Your task to perform on an android device: check battery use Image 0: 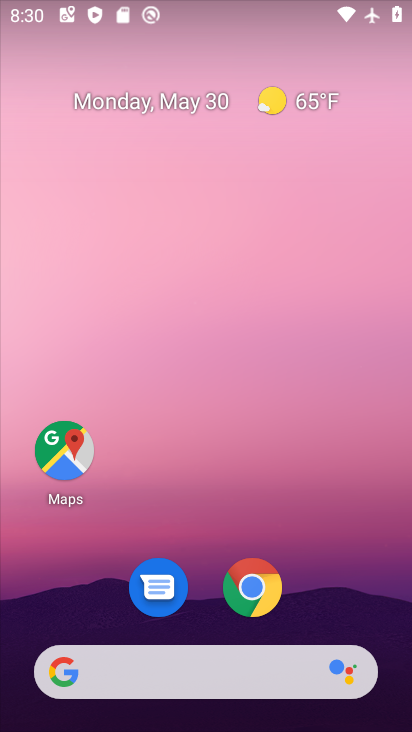
Step 0: press home button
Your task to perform on an android device: check battery use Image 1: 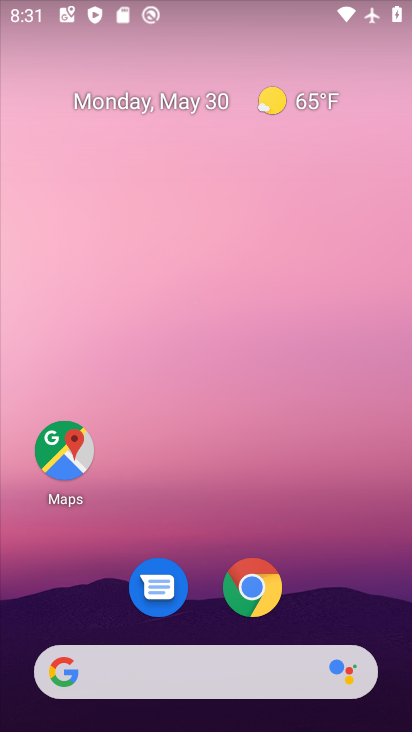
Step 1: drag from (163, 675) to (321, 146)
Your task to perform on an android device: check battery use Image 2: 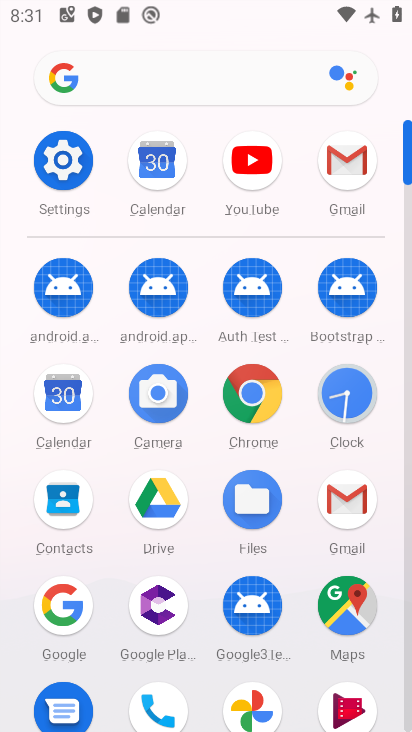
Step 2: click (73, 164)
Your task to perform on an android device: check battery use Image 3: 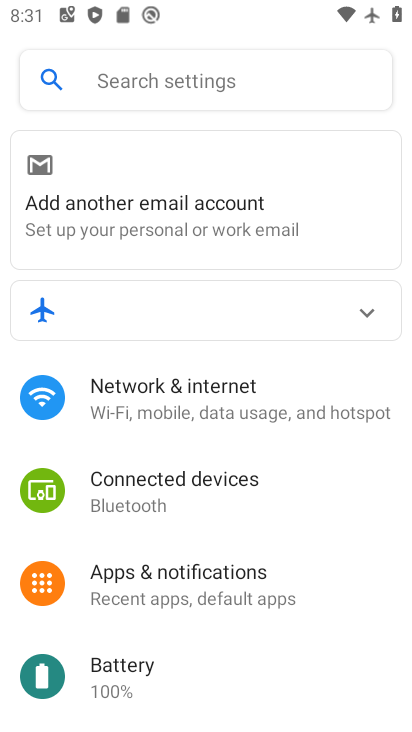
Step 3: click (135, 664)
Your task to perform on an android device: check battery use Image 4: 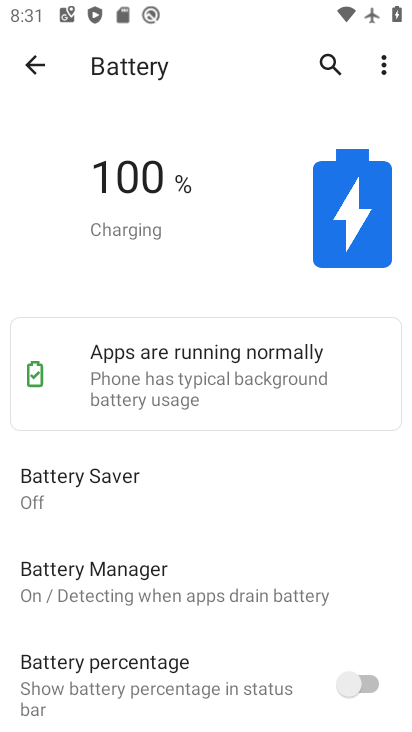
Step 4: click (383, 62)
Your task to perform on an android device: check battery use Image 5: 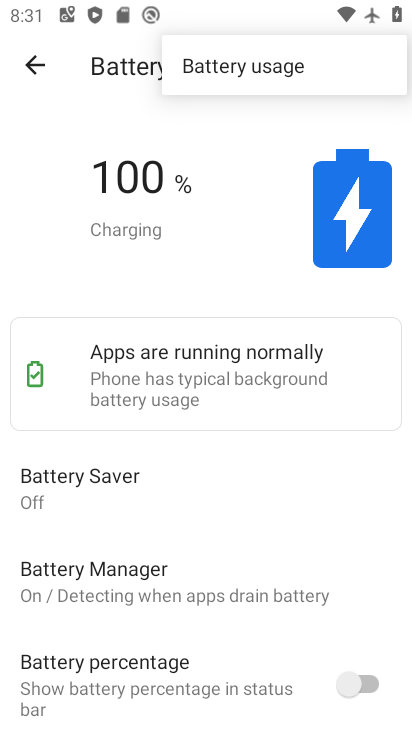
Step 5: click (263, 74)
Your task to perform on an android device: check battery use Image 6: 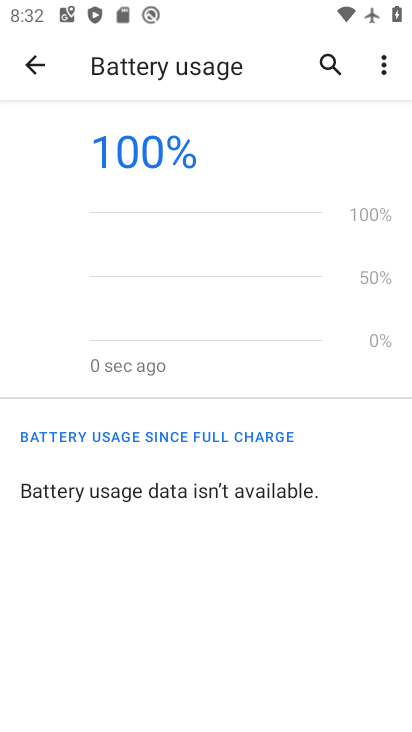
Step 6: task complete